Your task to perform on an android device: What's the weather? Image 0: 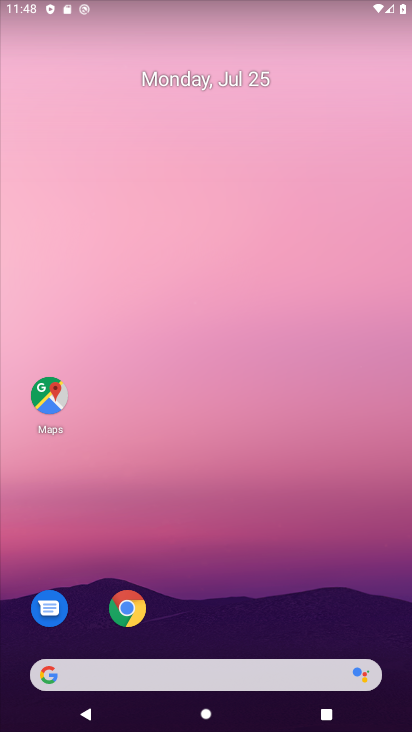
Step 0: drag from (289, 637) to (277, 57)
Your task to perform on an android device: What's the weather? Image 1: 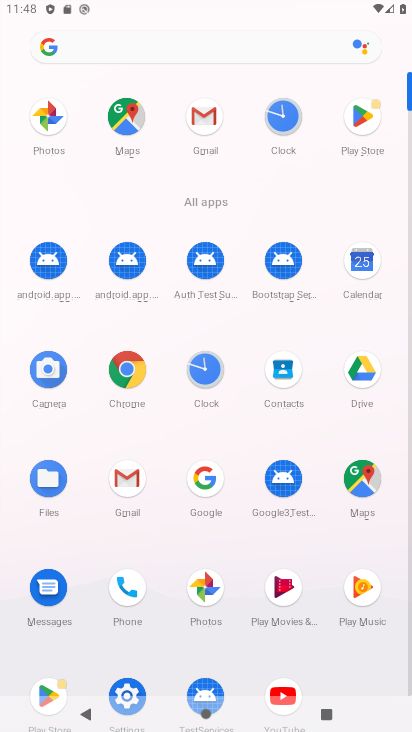
Step 1: click (217, 53)
Your task to perform on an android device: What's the weather? Image 2: 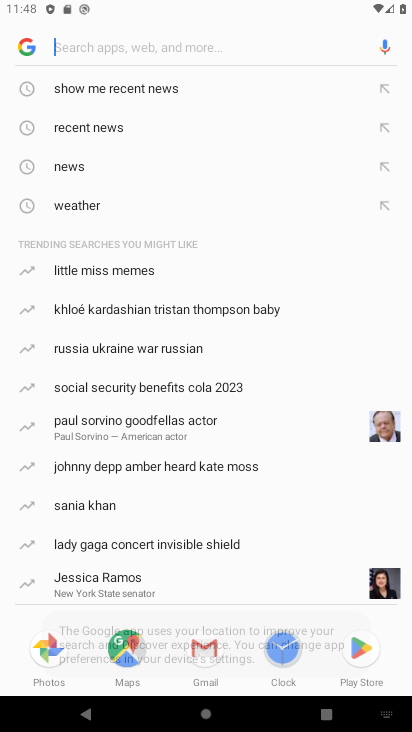
Step 2: click (121, 196)
Your task to perform on an android device: What's the weather? Image 3: 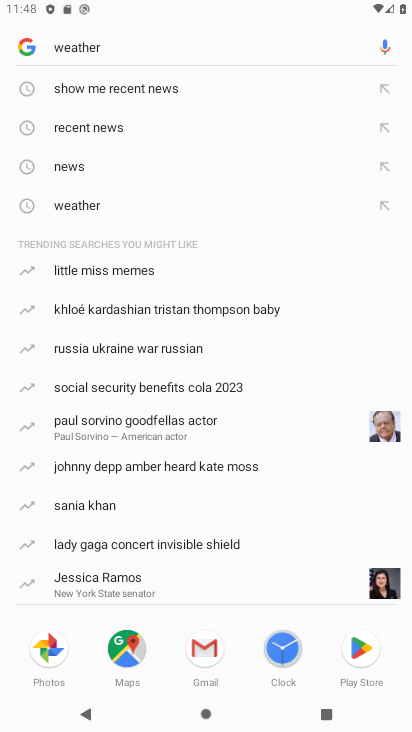
Step 3: task complete